Your task to perform on an android device: toggle pop-ups in chrome Image 0: 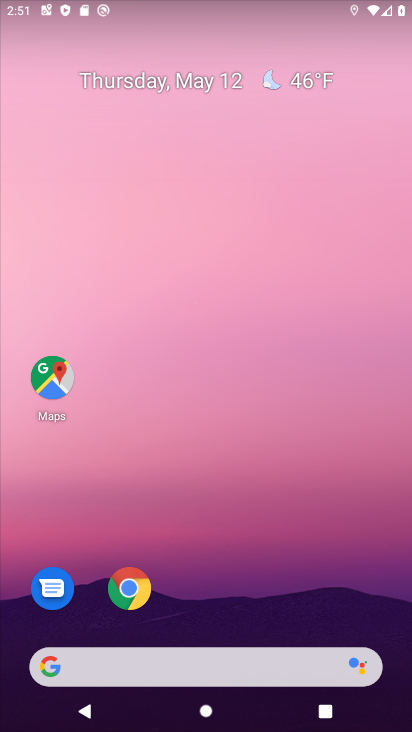
Step 0: drag from (368, 577) to (407, 153)
Your task to perform on an android device: toggle pop-ups in chrome Image 1: 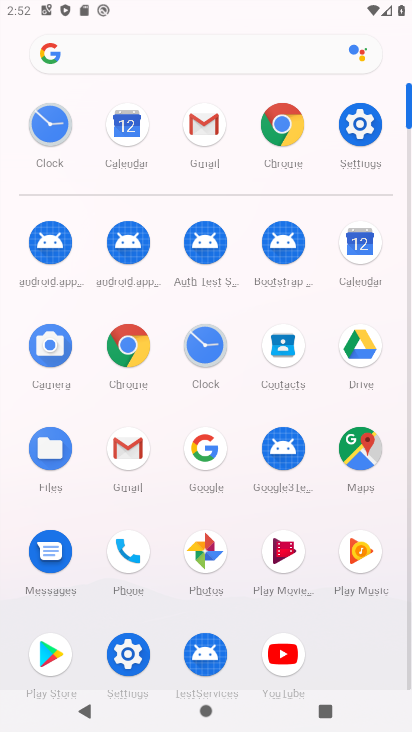
Step 1: click (105, 363)
Your task to perform on an android device: toggle pop-ups in chrome Image 2: 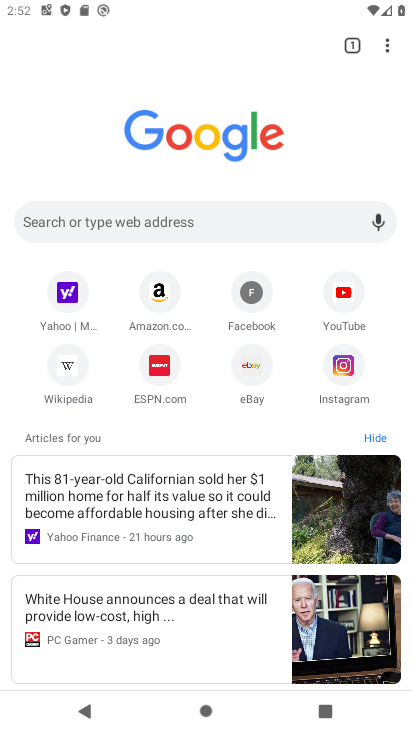
Step 2: click (384, 40)
Your task to perform on an android device: toggle pop-ups in chrome Image 3: 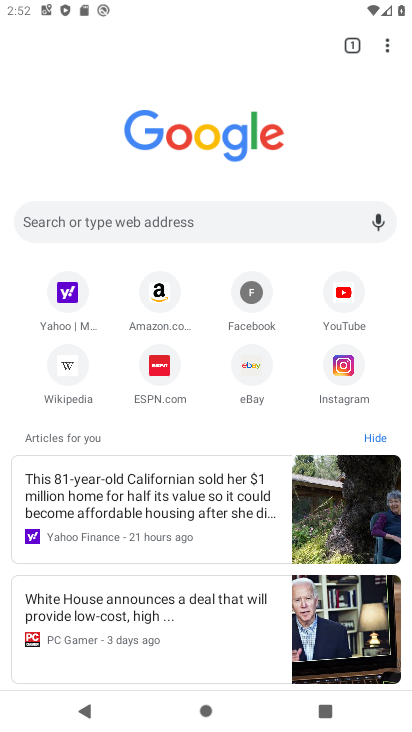
Step 3: click (384, 41)
Your task to perform on an android device: toggle pop-ups in chrome Image 4: 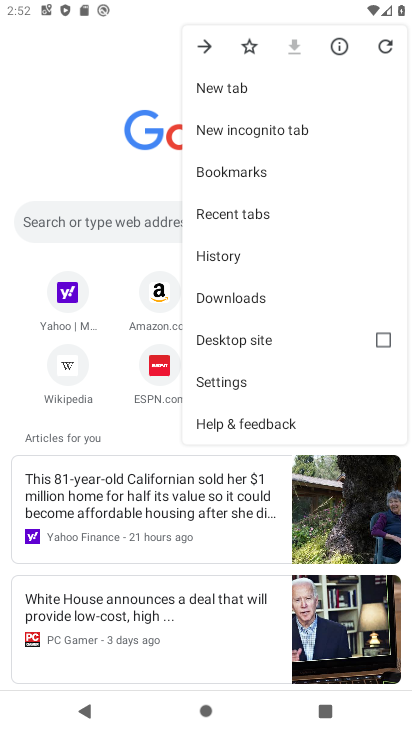
Step 4: click (264, 386)
Your task to perform on an android device: toggle pop-ups in chrome Image 5: 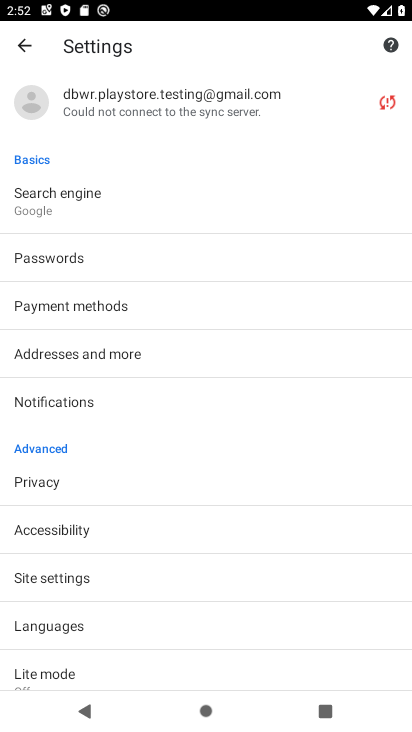
Step 5: click (128, 570)
Your task to perform on an android device: toggle pop-ups in chrome Image 6: 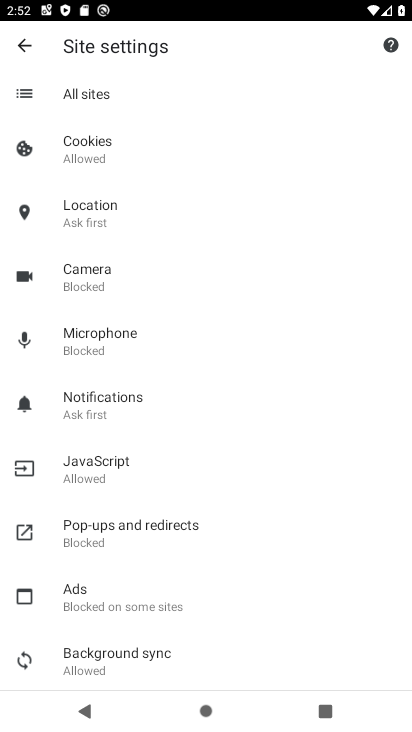
Step 6: click (124, 552)
Your task to perform on an android device: toggle pop-ups in chrome Image 7: 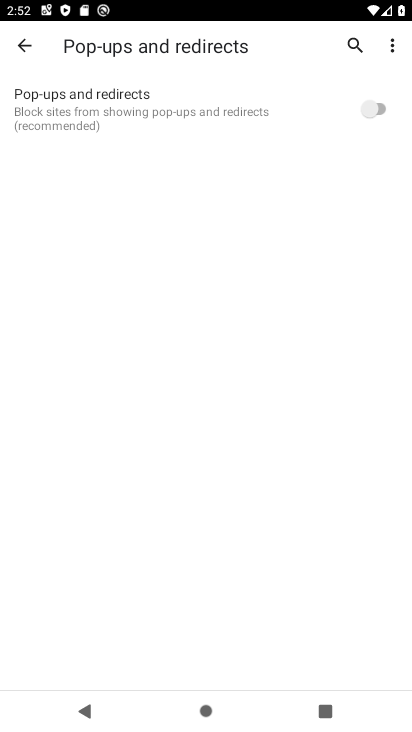
Step 7: click (350, 84)
Your task to perform on an android device: toggle pop-ups in chrome Image 8: 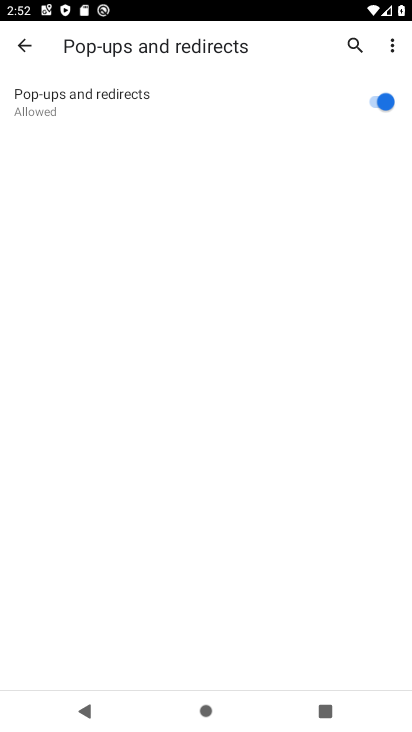
Step 8: task complete